Your task to perform on an android device: toggle location history Image 0: 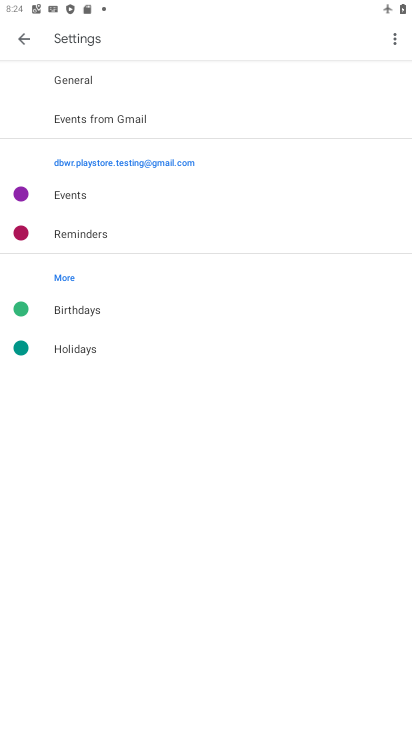
Step 0: press home button
Your task to perform on an android device: toggle location history Image 1: 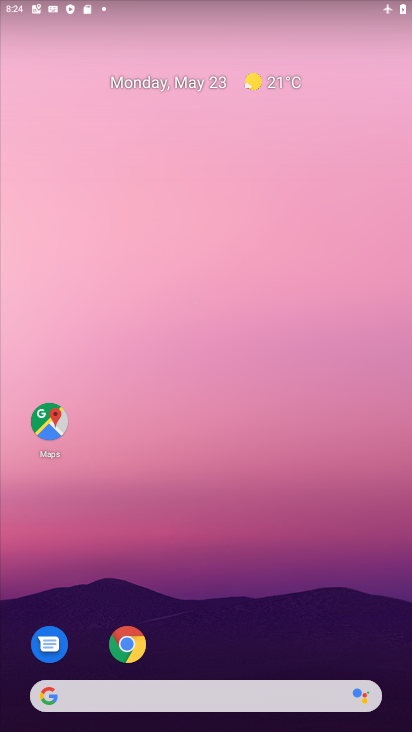
Step 1: drag from (171, 728) to (27, 18)
Your task to perform on an android device: toggle location history Image 2: 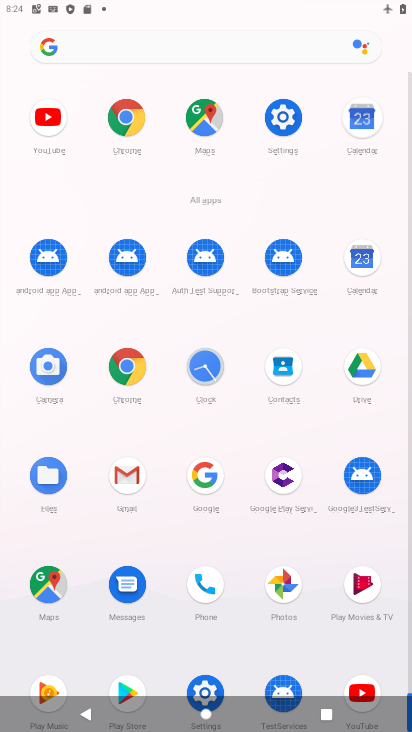
Step 2: click (284, 111)
Your task to perform on an android device: toggle location history Image 3: 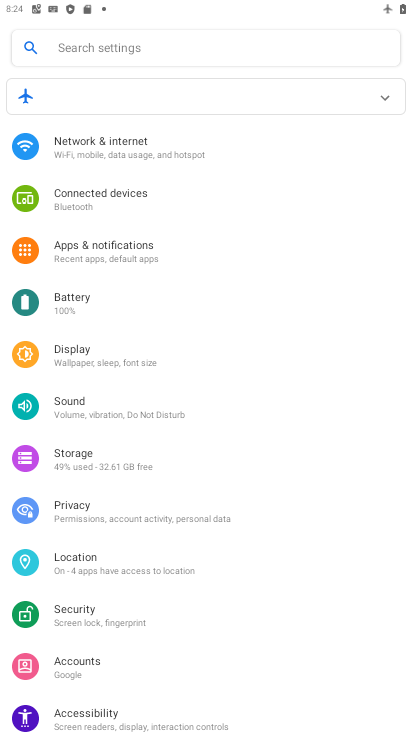
Step 3: click (116, 566)
Your task to perform on an android device: toggle location history Image 4: 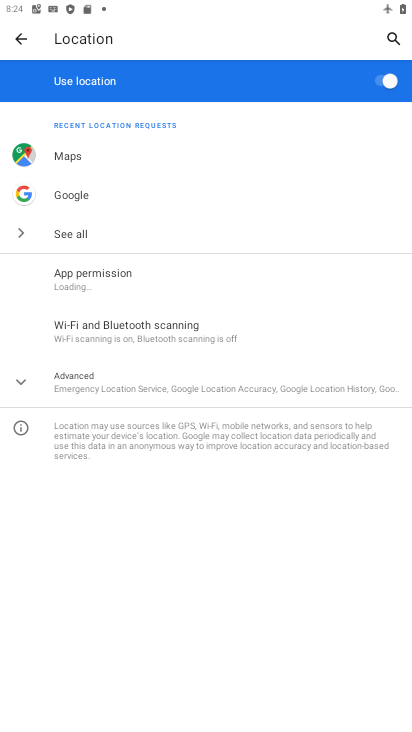
Step 4: click (258, 388)
Your task to perform on an android device: toggle location history Image 5: 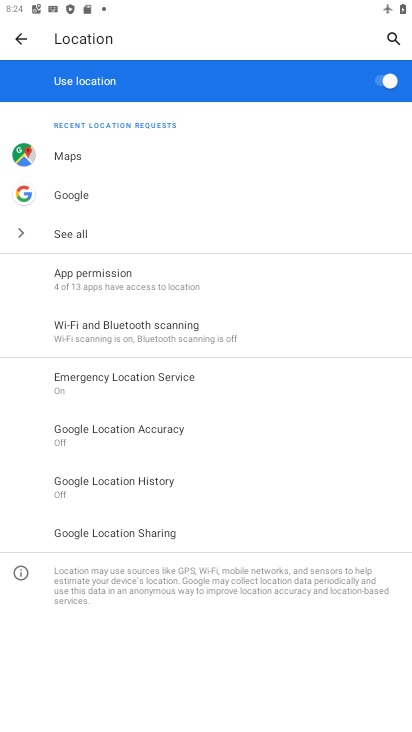
Step 5: click (150, 481)
Your task to perform on an android device: toggle location history Image 6: 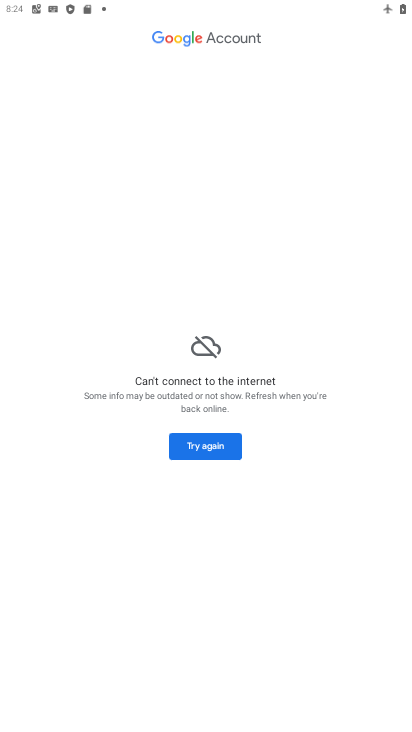
Step 6: task complete